Your task to perform on an android device: turn off location Image 0: 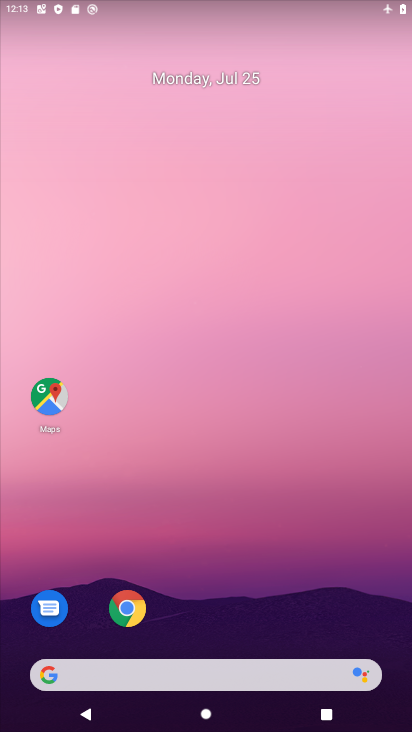
Step 0: drag from (272, 648) to (236, 13)
Your task to perform on an android device: turn off location Image 1: 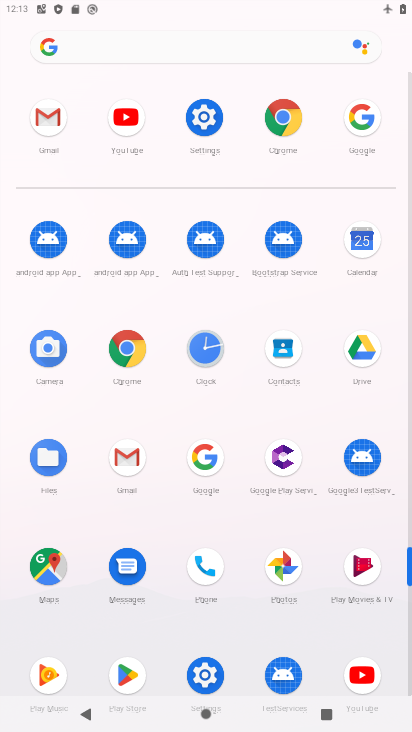
Step 1: click (206, 128)
Your task to perform on an android device: turn off location Image 2: 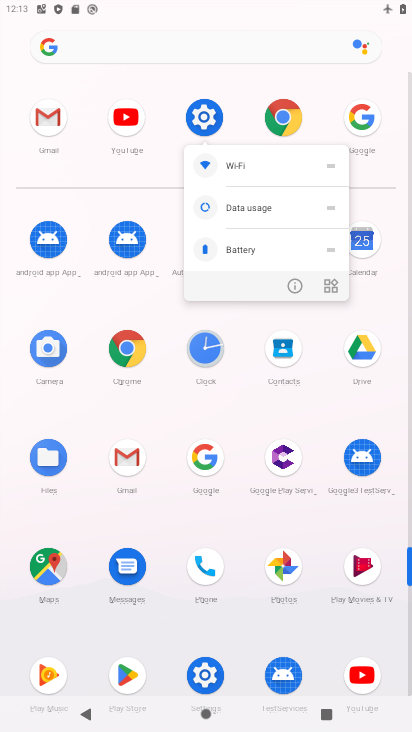
Step 2: click (206, 128)
Your task to perform on an android device: turn off location Image 3: 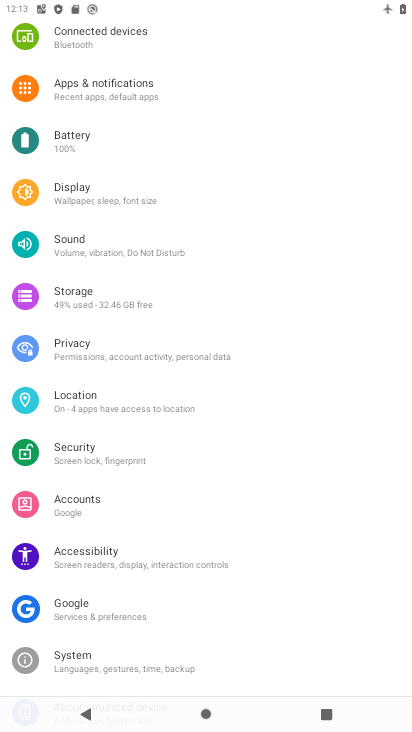
Step 3: click (85, 407)
Your task to perform on an android device: turn off location Image 4: 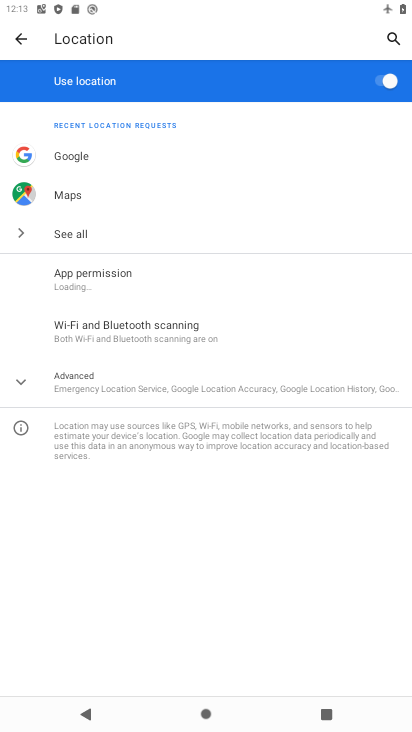
Step 4: click (401, 81)
Your task to perform on an android device: turn off location Image 5: 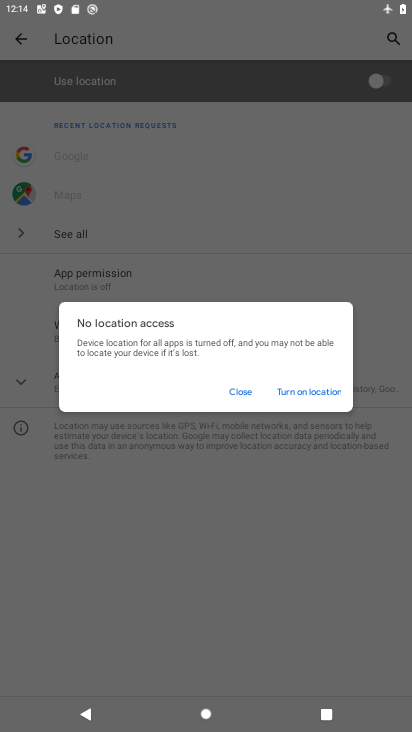
Step 5: click (238, 391)
Your task to perform on an android device: turn off location Image 6: 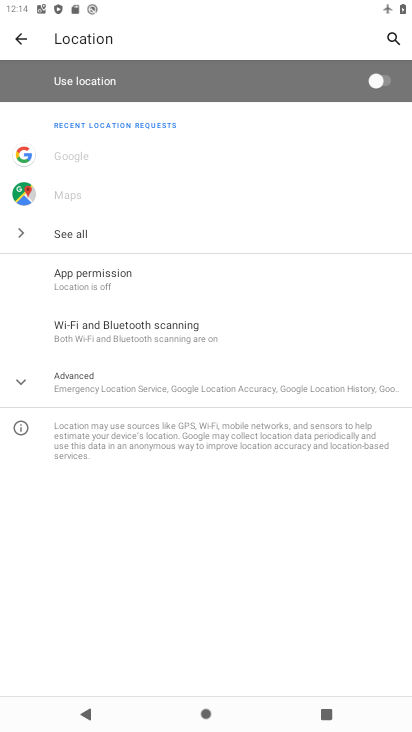
Step 6: task complete